Your task to perform on an android device: What is the news today? Image 0: 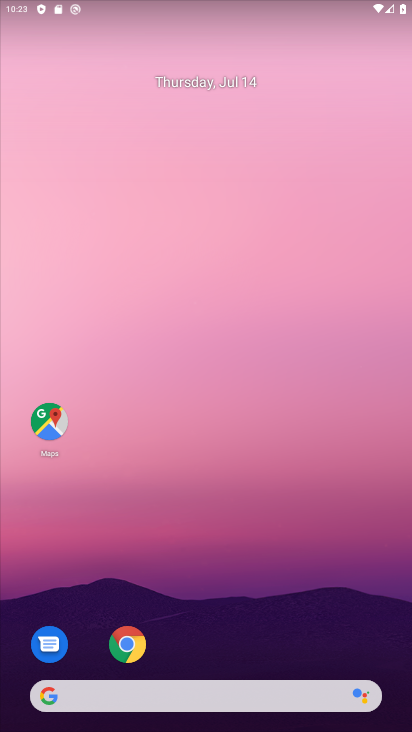
Step 0: click (133, 652)
Your task to perform on an android device: What is the news today? Image 1: 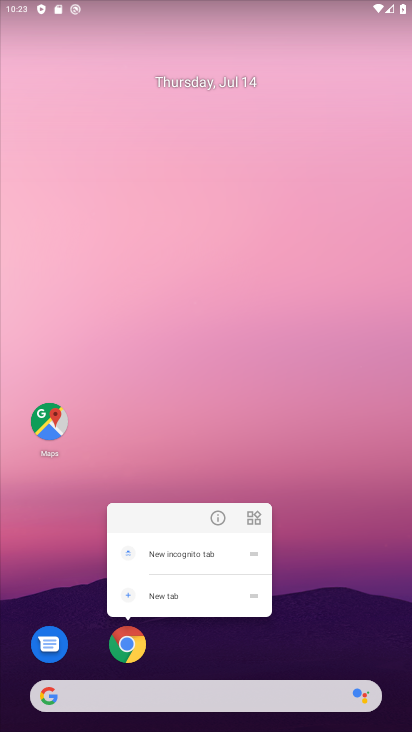
Step 1: click (136, 653)
Your task to perform on an android device: What is the news today? Image 2: 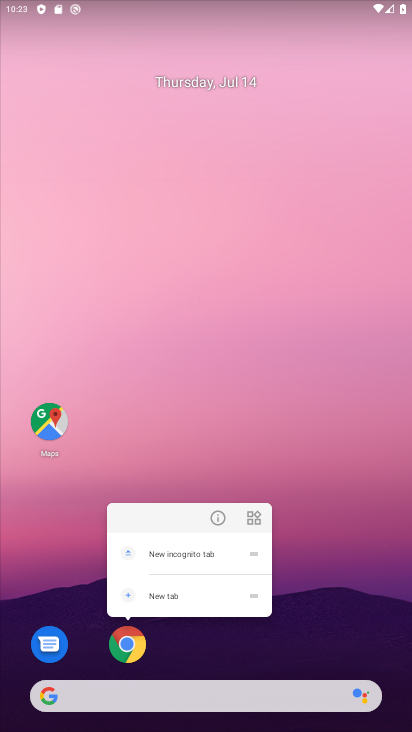
Step 2: click (136, 653)
Your task to perform on an android device: What is the news today? Image 3: 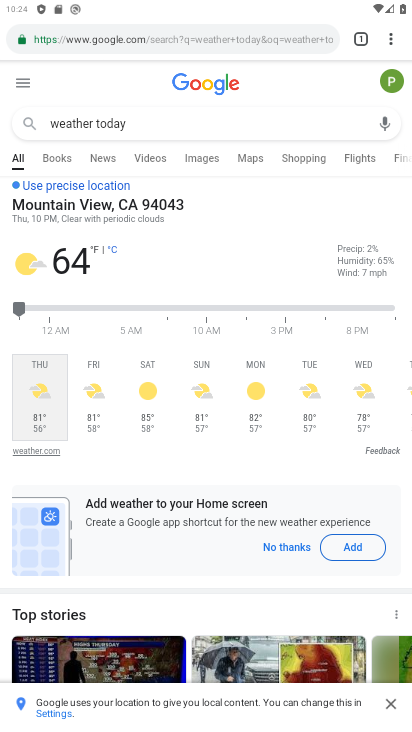
Step 3: click (169, 39)
Your task to perform on an android device: What is the news today? Image 4: 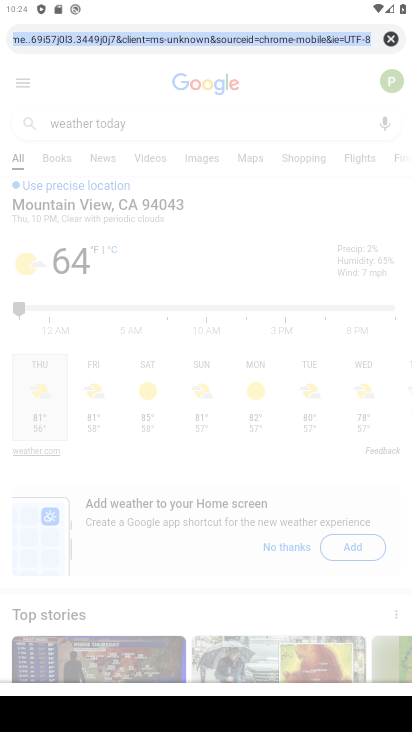
Step 4: type "news today"
Your task to perform on an android device: What is the news today? Image 5: 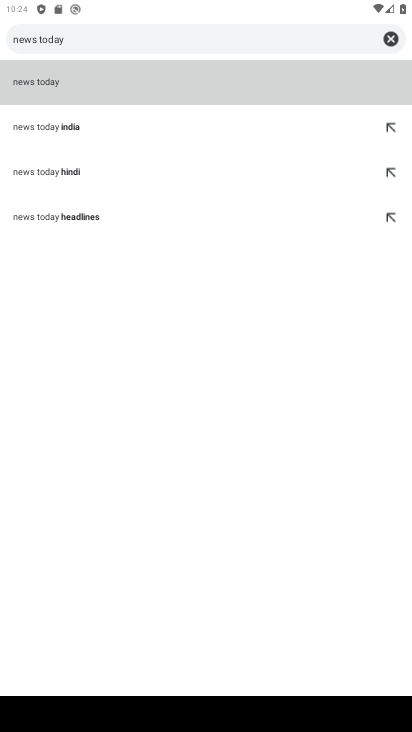
Step 5: click (48, 78)
Your task to perform on an android device: What is the news today? Image 6: 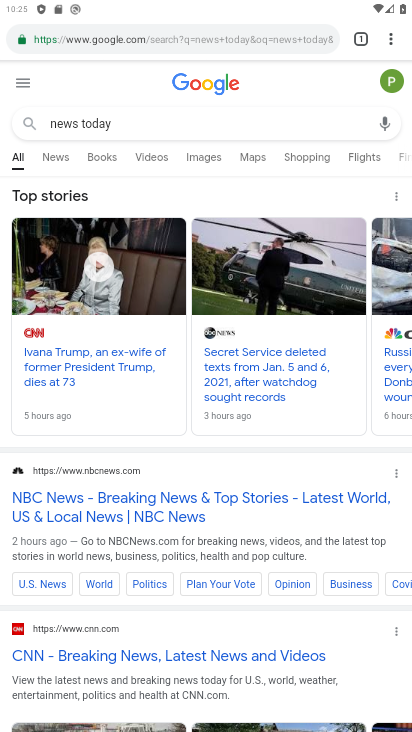
Step 6: task complete